Your task to perform on an android device: toggle improve location accuracy Image 0: 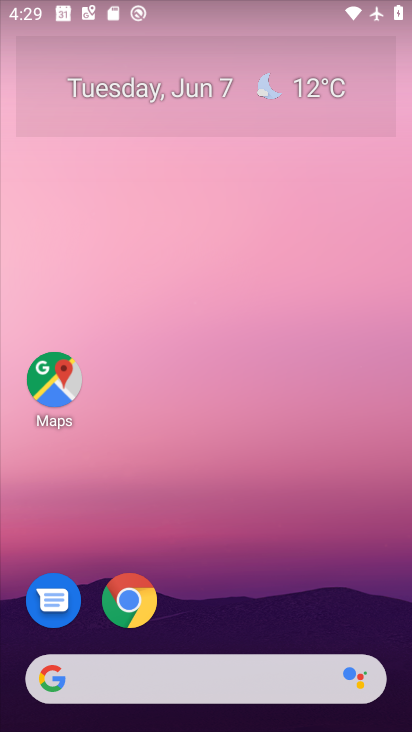
Step 0: drag from (315, 547) to (250, 117)
Your task to perform on an android device: toggle improve location accuracy Image 1: 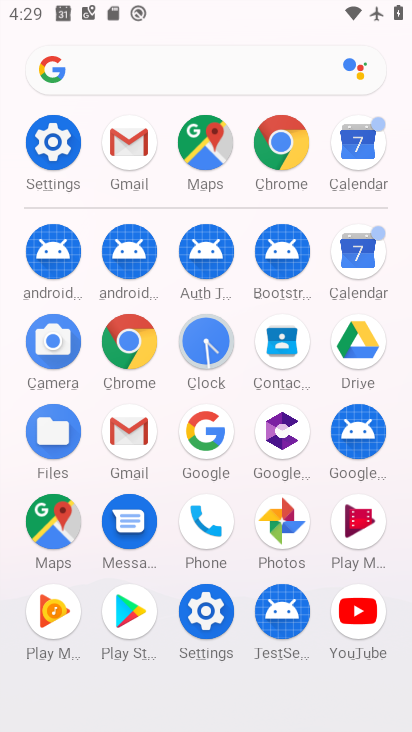
Step 1: click (51, 134)
Your task to perform on an android device: toggle improve location accuracy Image 2: 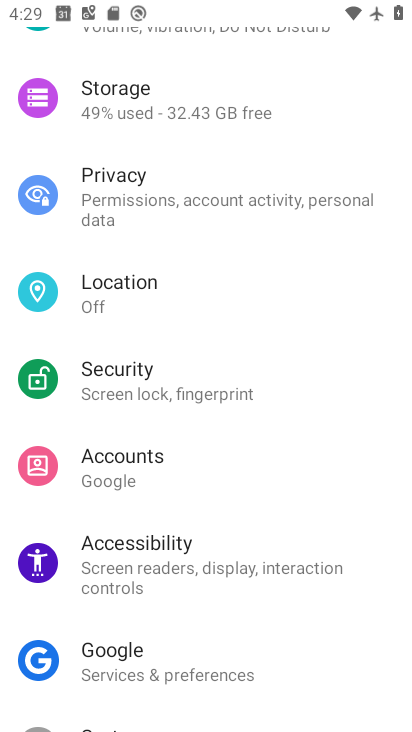
Step 2: drag from (172, 504) to (191, 335)
Your task to perform on an android device: toggle improve location accuracy Image 3: 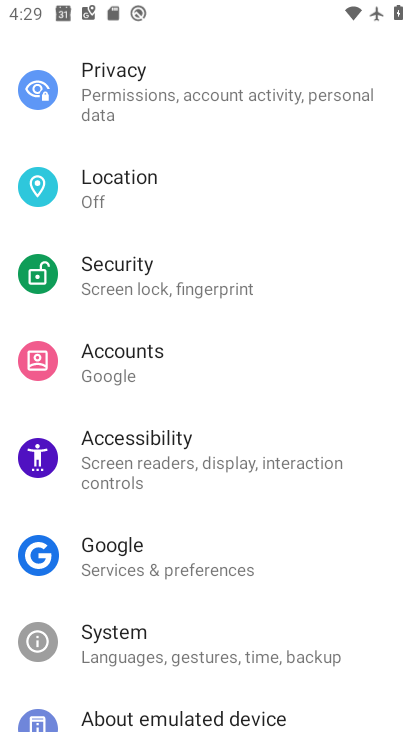
Step 3: click (131, 174)
Your task to perform on an android device: toggle improve location accuracy Image 4: 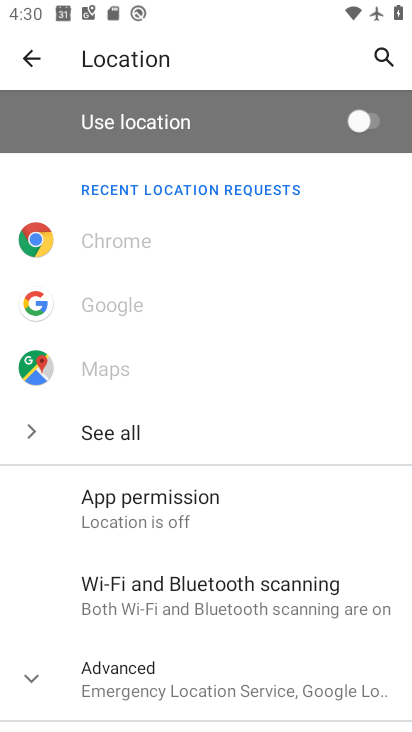
Step 4: click (179, 680)
Your task to perform on an android device: toggle improve location accuracy Image 5: 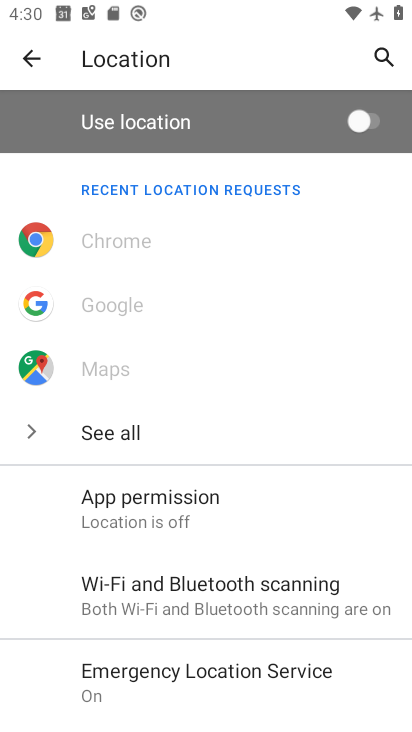
Step 5: drag from (236, 659) to (236, 233)
Your task to perform on an android device: toggle improve location accuracy Image 6: 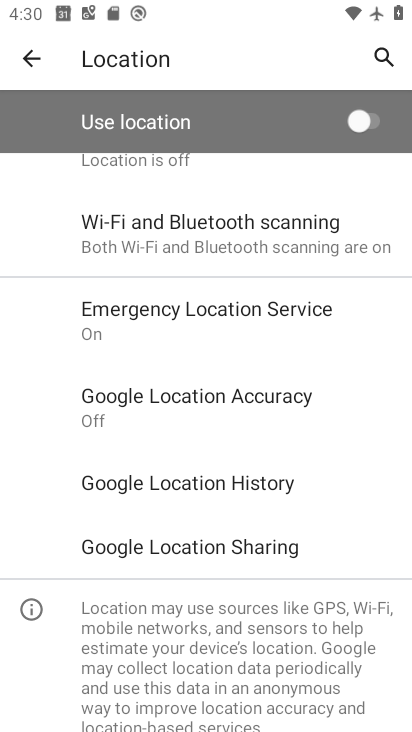
Step 6: click (246, 413)
Your task to perform on an android device: toggle improve location accuracy Image 7: 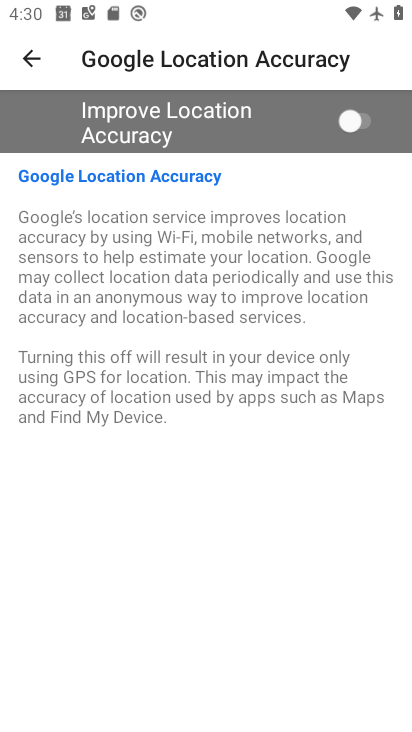
Step 7: click (365, 106)
Your task to perform on an android device: toggle improve location accuracy Image 8: 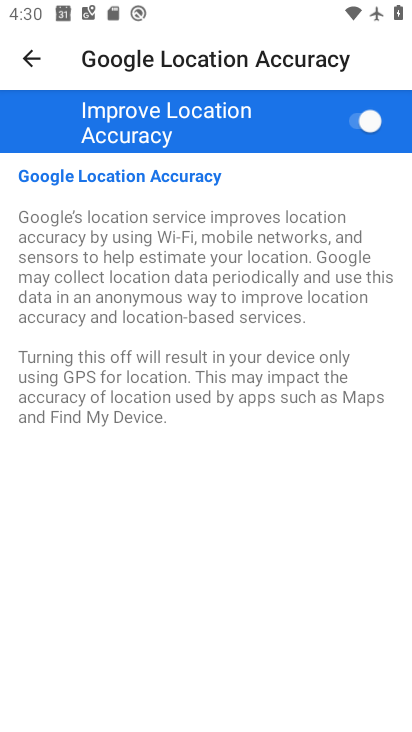
Step 8: task complete